Your task to perform on an android device: Go to notification settings Image 0: 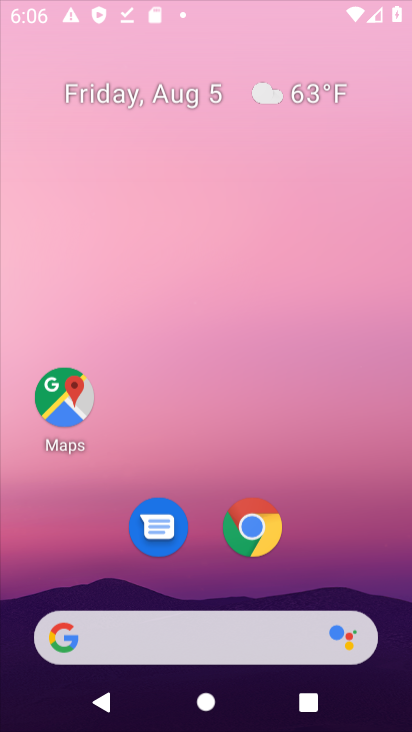
Step 0: press home button
Your task to perform on an android device: Go to notification settings Image 1: 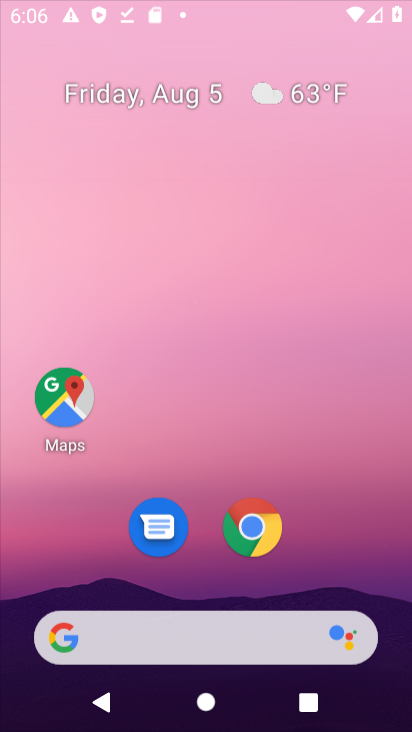
Step 1: click (251, 3)
Your task to perform on an android device: Go to notification settings Image 2: 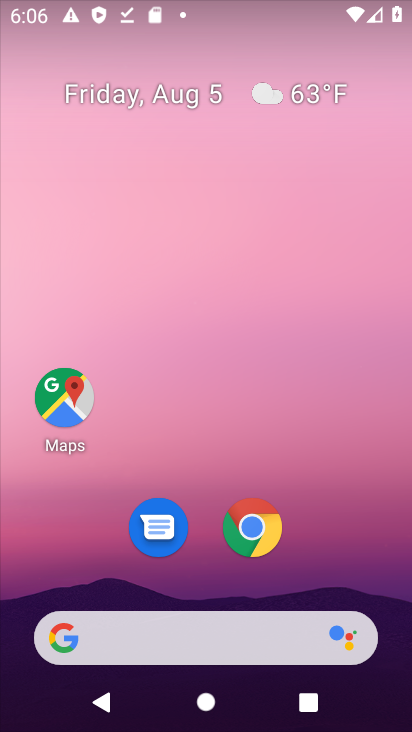
Step 2: drag from (185, 559) to (246, 84)
Your task to perform on an android device: Go to notification settings Image 3: 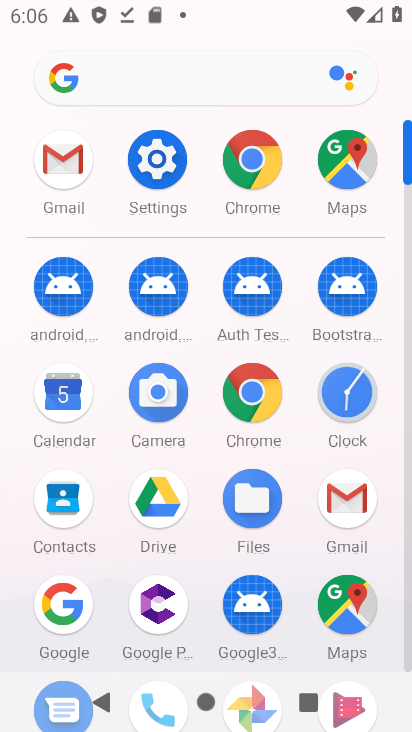
Step 3: click (148, 172)
Your task to perform on an android device: Go to notification settings Image 4: 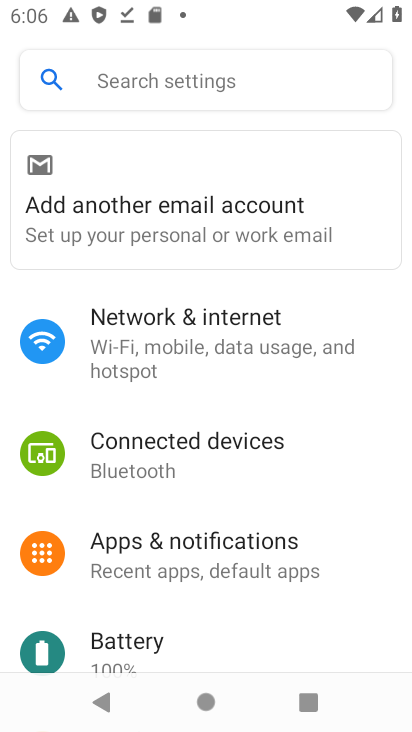
Step 4: drag from (212, 542) to (225, 172)
Your task to perform on an android device: Go to notification settings Image 5: 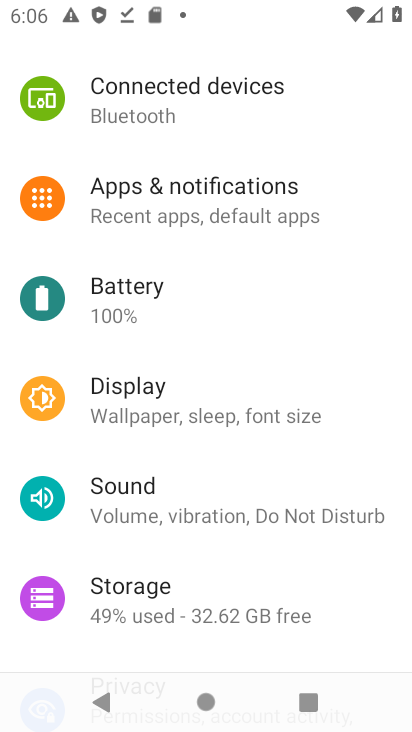
Step 5: click (167, 193)
Your task to perform on an android device: Go to notification settings Image 6: 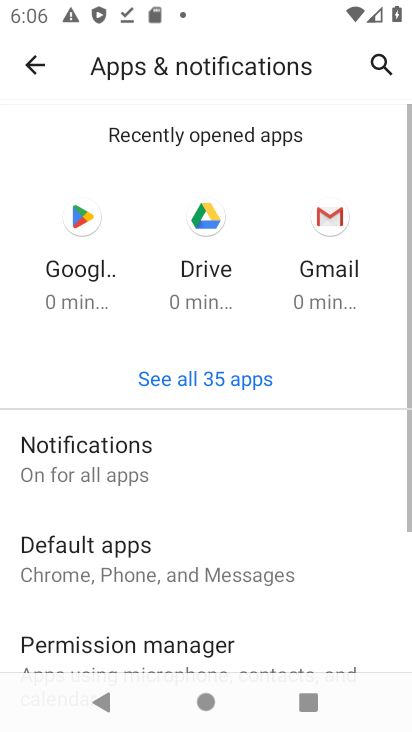
Step 6: drag from (260, 397) to (354, 129)
Your task to perform on an android device: Go to notification settings Image 7: 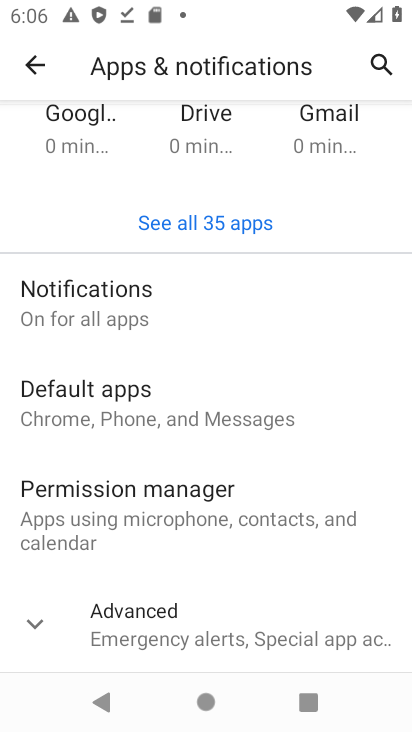
Step 7: click (173, 294)
Your task to perform on an android device: Go to notification settings Image 8: 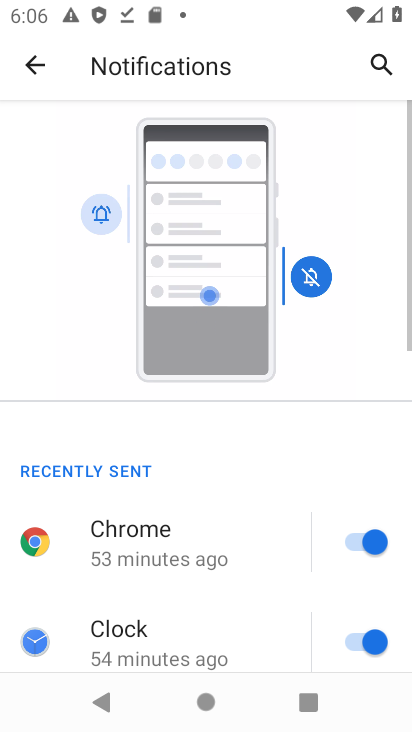
Step 8: task complete